Your task to perform on an android device: open chrome and create a bookmark for the current page Image 0: 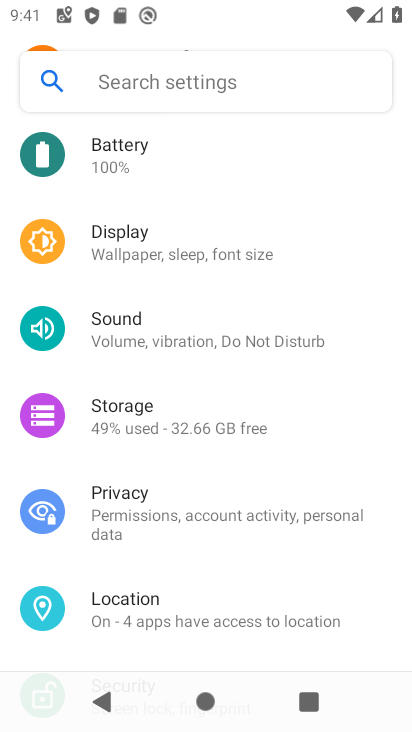
Step 0: press home button
Your task to perform on an android device: open chrome and create a bookmark for the current page Image 1: 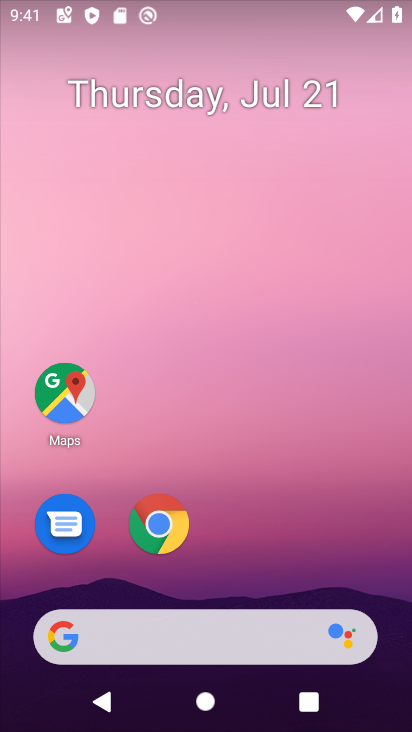
Step 1: click (170, 524)
Your task to perform on an android device: open chrome and create a bookmark for the current page Image 2: 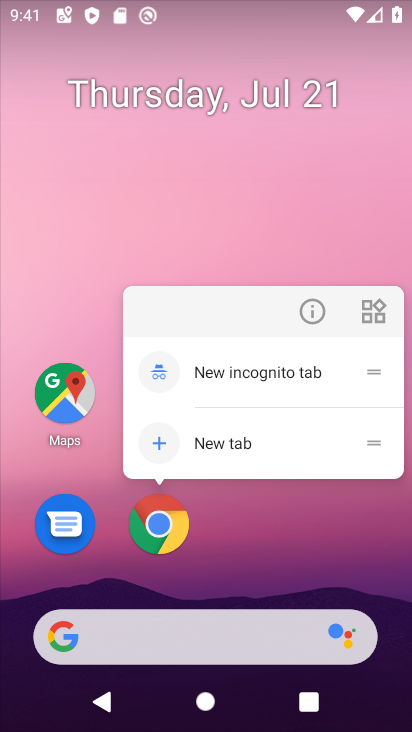
Step 2: click (161, 530)
Your task to perform on an android device: open chrome and create a bookmark for the current page Image 3: 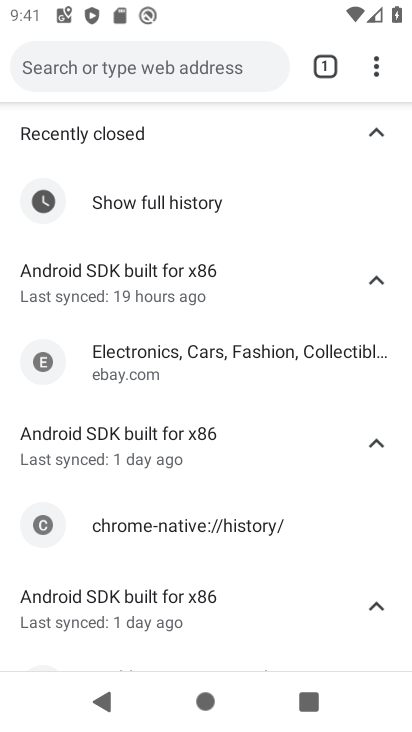
Step 3: drag from (373, 56) to (329, 6)
Your task to perform on an android device: open chrome and create a bookmark for the current page Image 4: 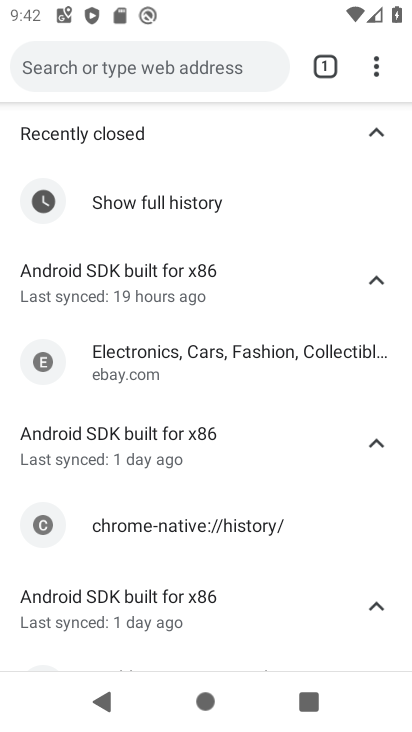
Step 4: click (373, 84)
Your task to perform on an android device: open chrome and create a bookmark for the current page Image 5: 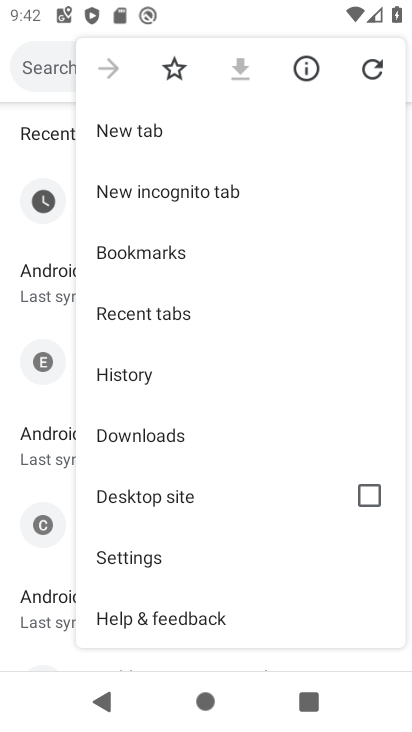
Step 5: click (175, 66)
Your task to perform on an android device: open chrome and create a bookmark for the current page Image 6: 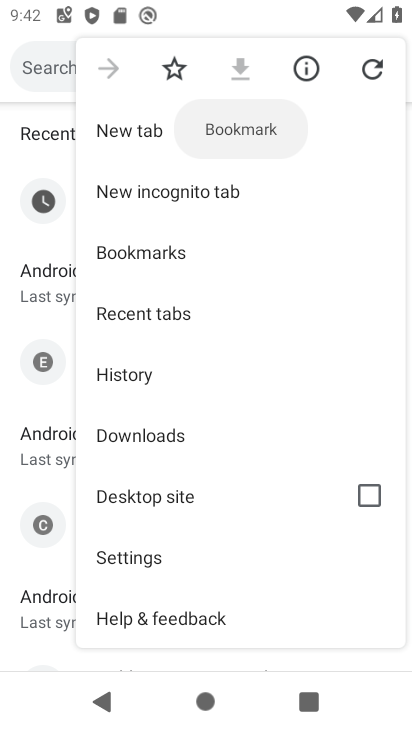
Step 6: click (173, 67)
Your task to perform on an android device: open chrome and create a bookmark for the current page Image 7: 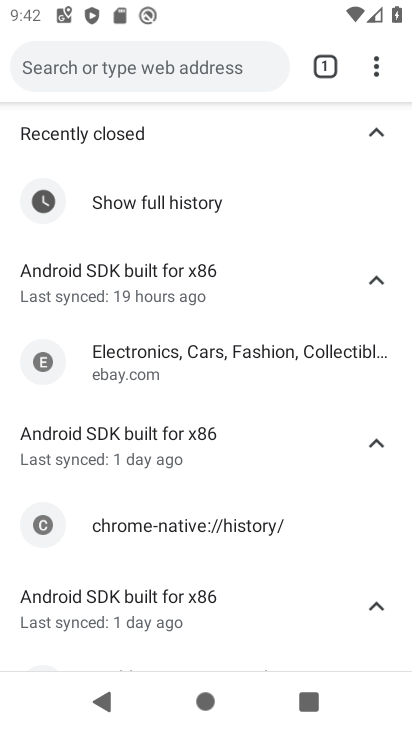
Step 7: task complete